Your task to perform on an android device: turn off wifi Image 0: 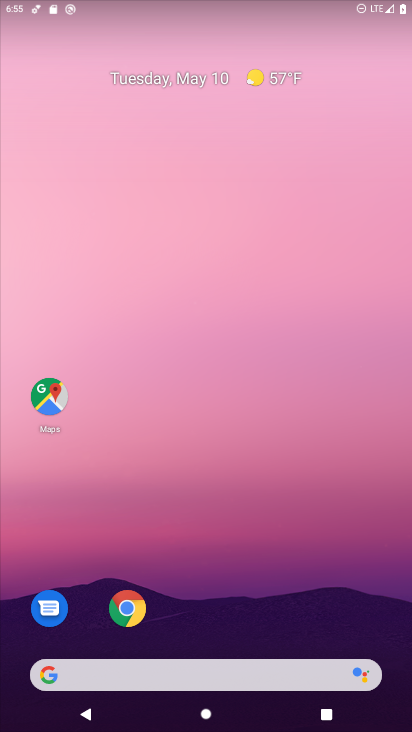
Step 0: drag from (215, 8) to (212, 506)
Your task to perform on an android device: turn off wifi Image 1: 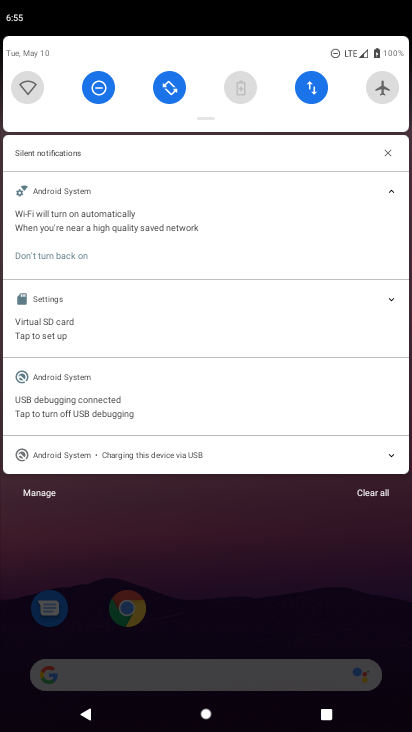
Step 1: task complete